Your task to perform on an android device: Is it going to rain today? Image 0: 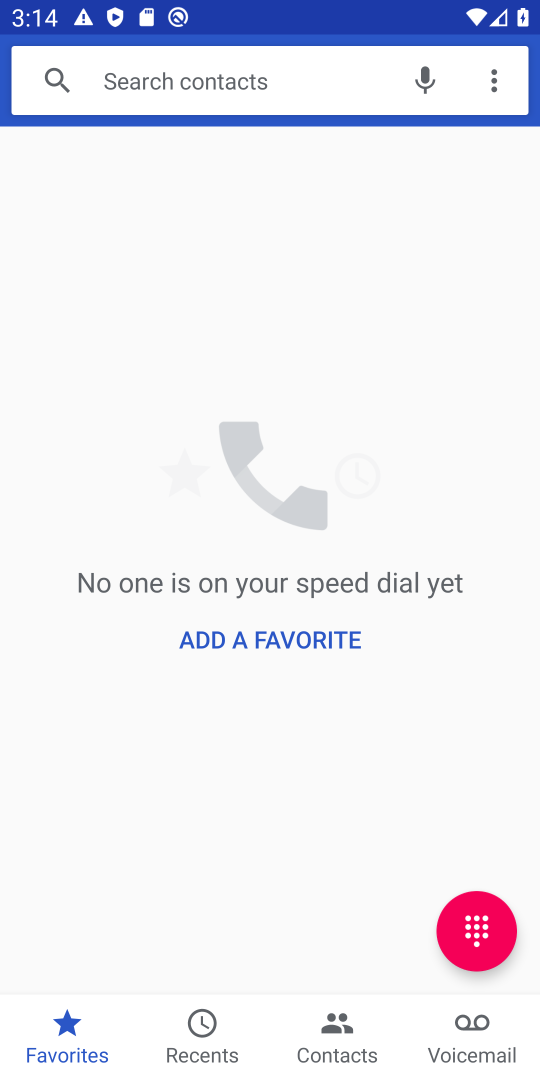
Step 0: press home button
Your task to perform on an android device: Is it going to rain today? Image 1: 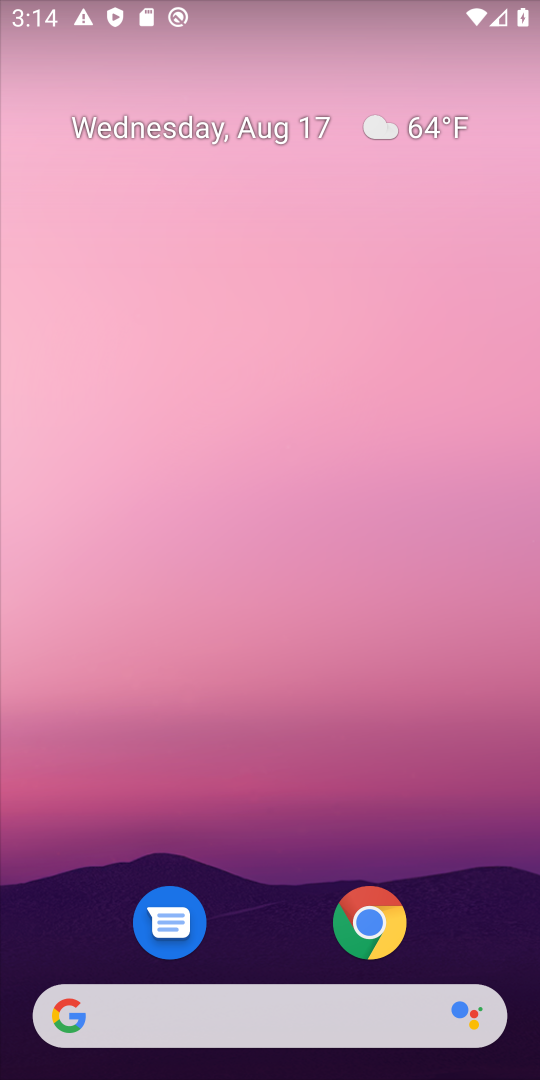
Step 1: click (389, 128)
Your task to perform on an android device: Is it going to rain today? Image 2: 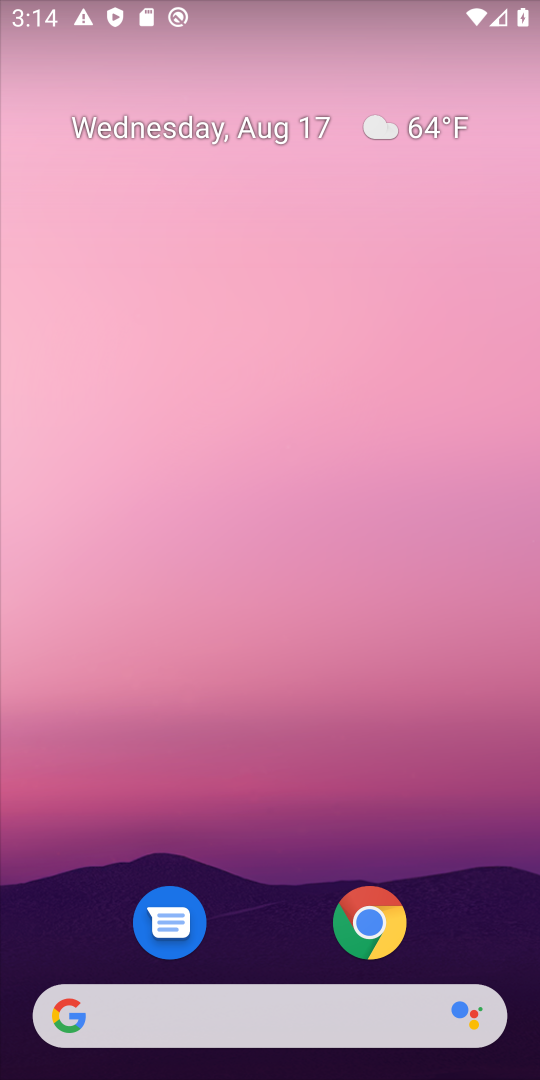
Step 2: click (455, 124)
Your task to perform on an android device: Is it going to rain today? Image 3: 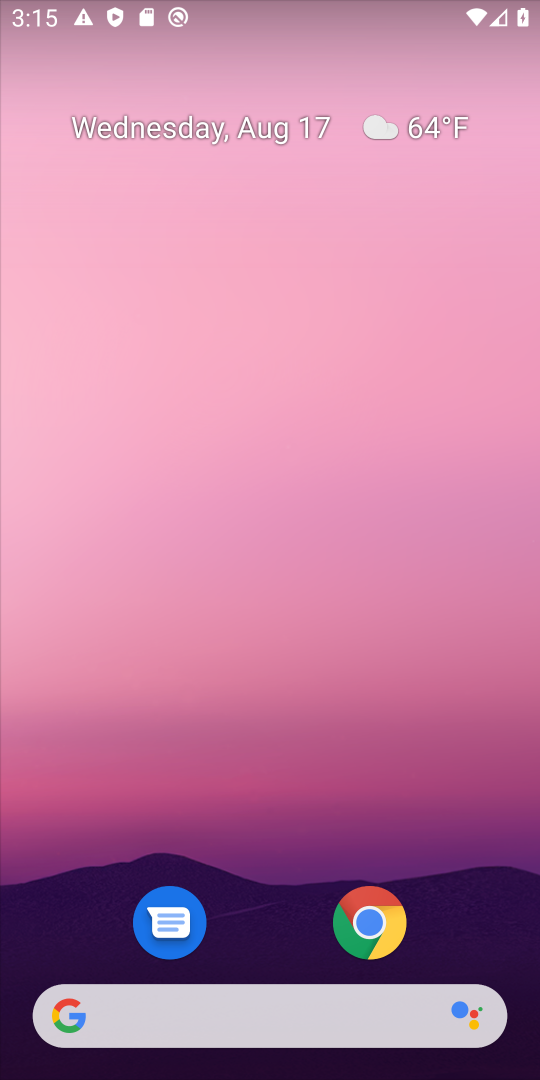
Step 3: click (393, 135)
Your task to perform on an android device: Is it going to rain today? Image 4: 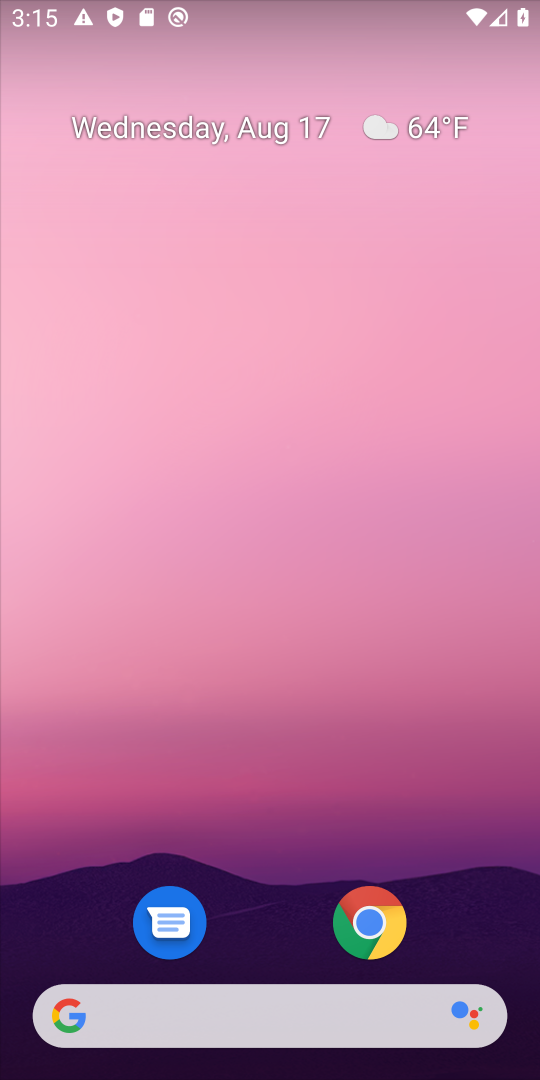
Step 4: click (393, 135)
Your task to perform on an android device: Is it going to rain today? Image 5: 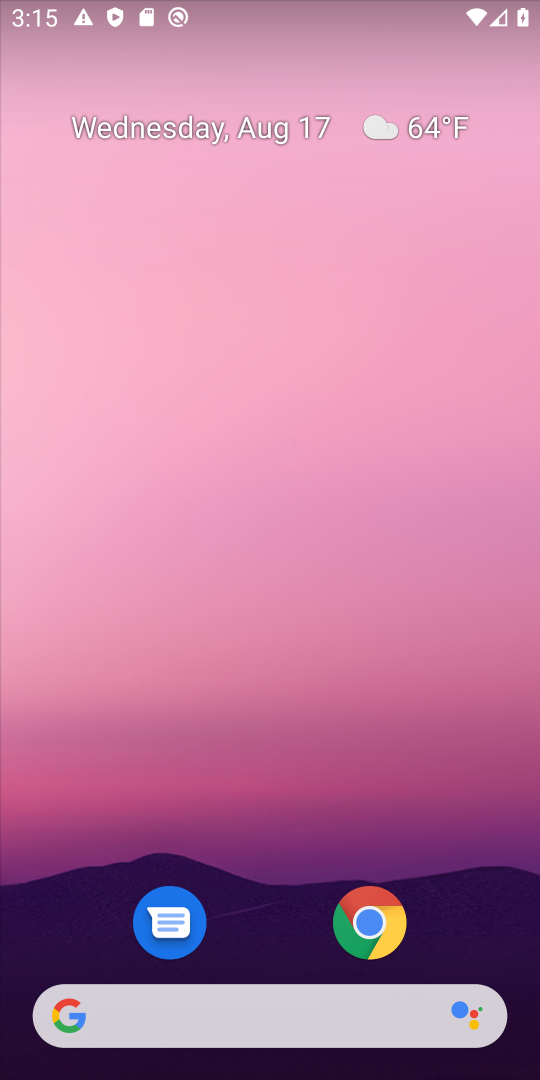
Step 5: click (448, 125)
Your task to perform on an android device: Is it going to rain today? Image 6: 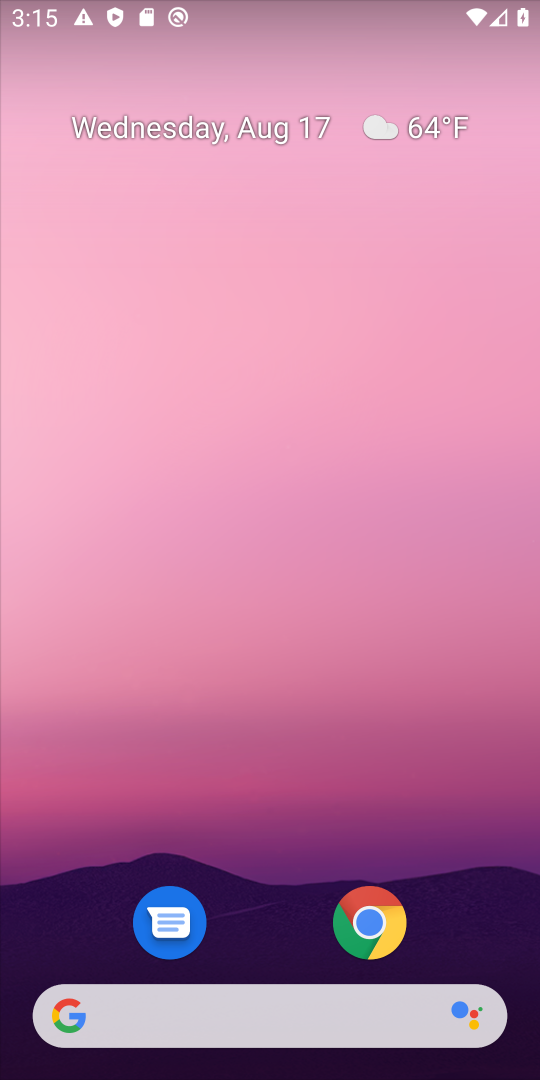
Step 6: click (424, 135)
Your task to perform on an android device: Is it going to rain today? Image 7: 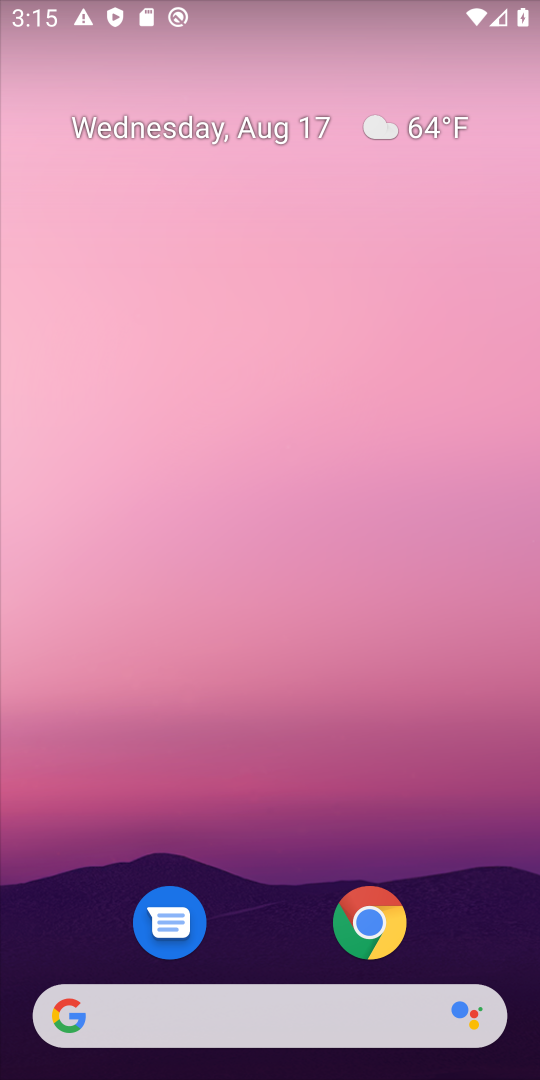
Step 7: click (401, 134)
Your task to perform on an android device: Is it going to rain today? Image 8: 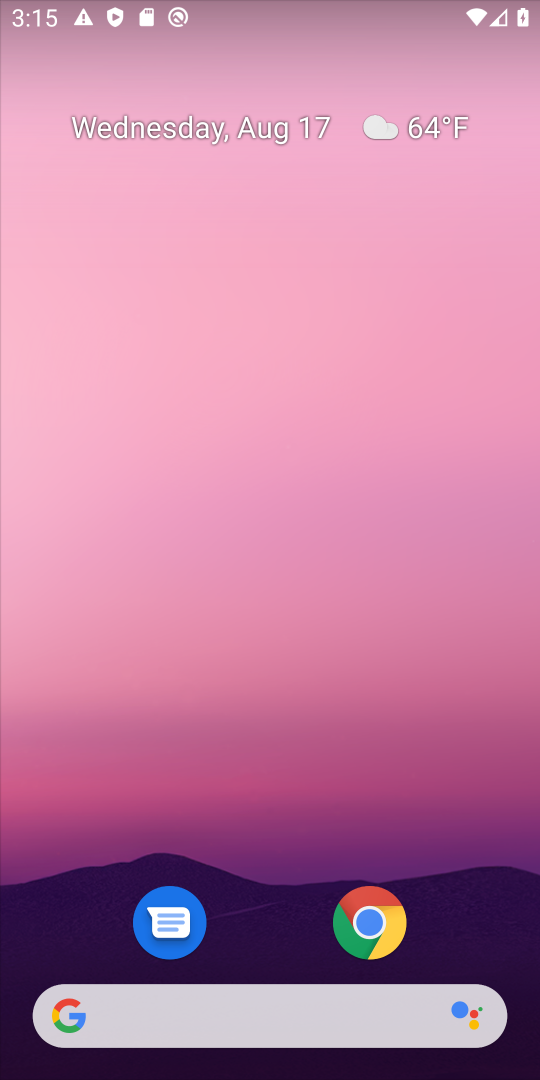
Step 8: click (389, 127)
Your task to perform on an android device: Is it going to rain today? Image 9: 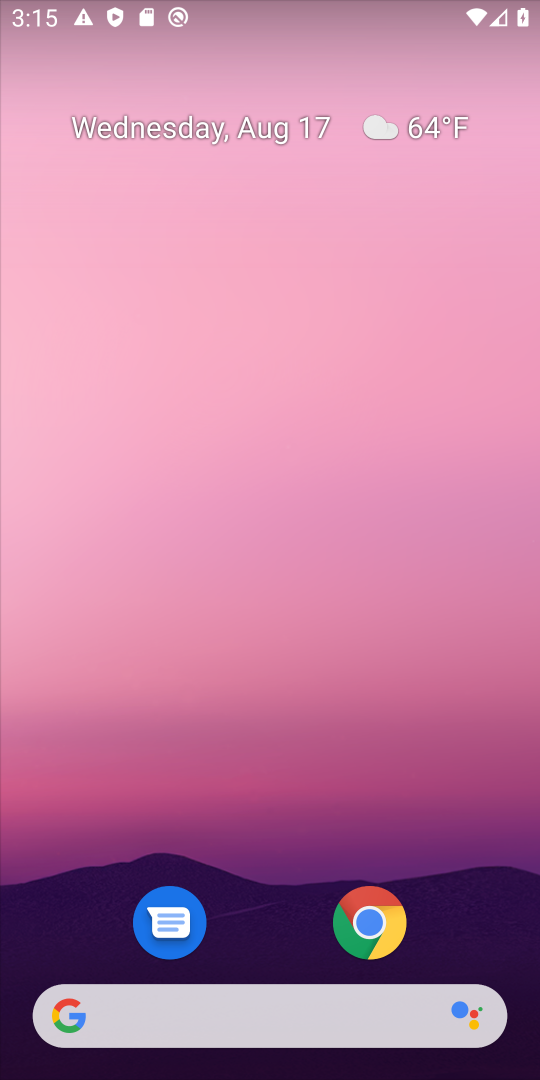
Step 9: click (389, 127)
Your task to perform on an android device: Is it going to rain today? Image 10: 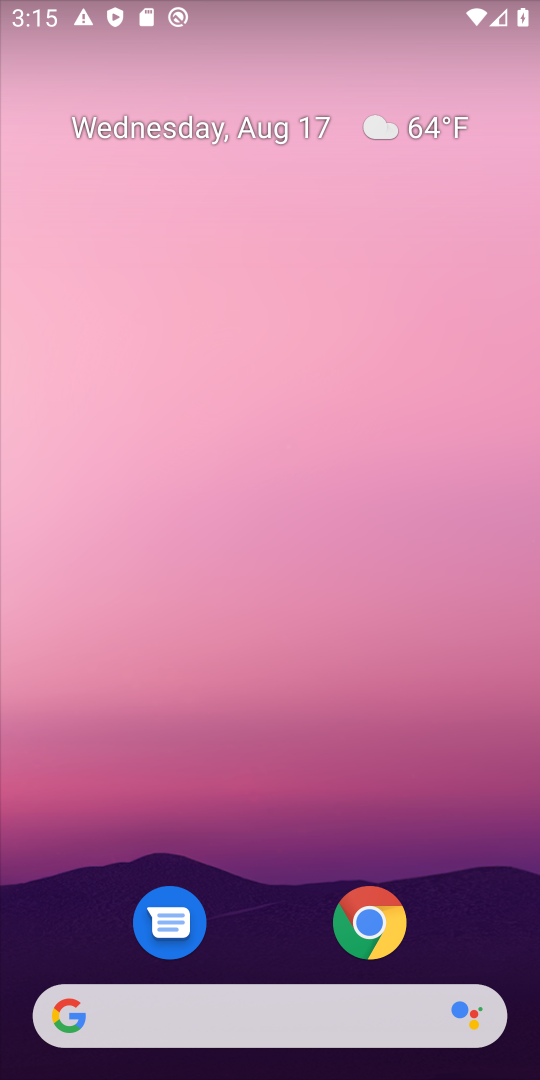
Step 10: click (349, 1017)
Your task to perform on an android device: Is it going to rain today? Image 11: 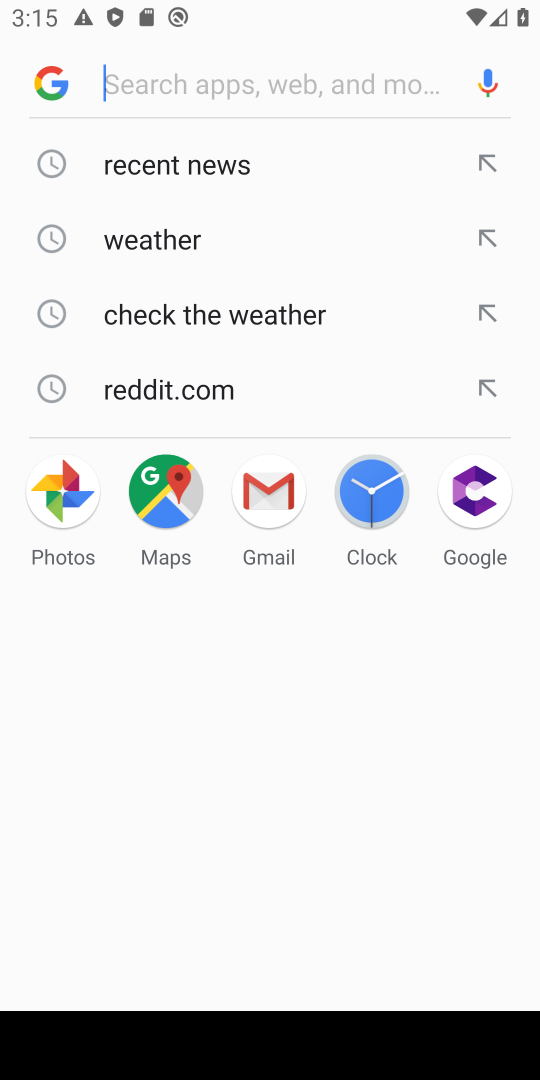
Step 11: click (237, 230)
Your task to perform on an android device: Is it going to rain today? Image 12: 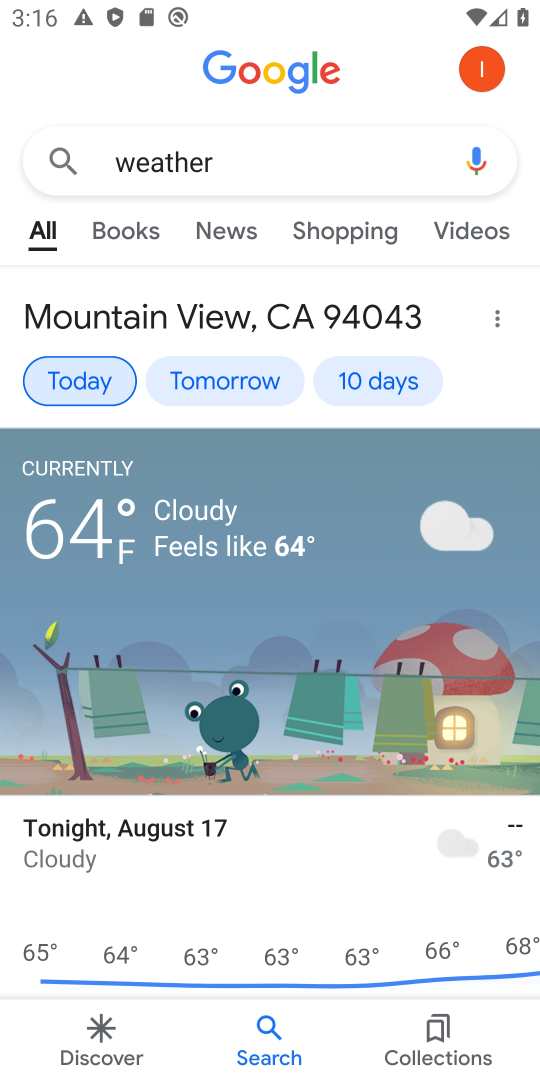
Step 12: task complete